Your task to perform on an android device: Open settings on Google Maps Image 0: 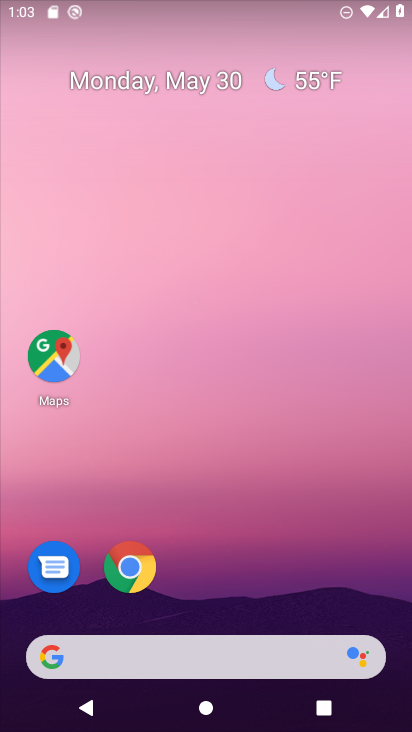
Step 0: press home button
Your task to perform on an android device: Open settings on Google Maps Image 1: 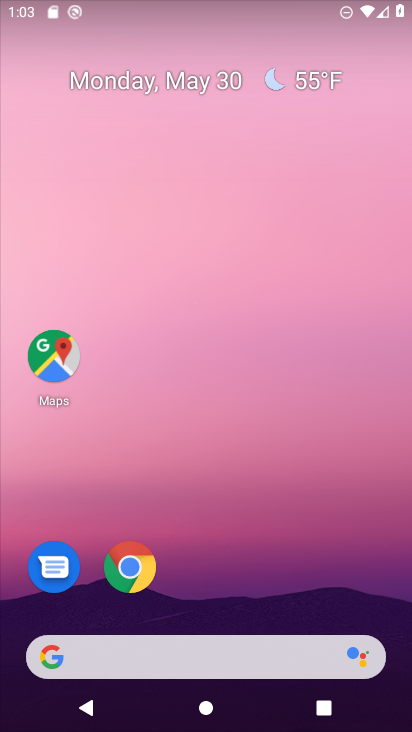
Step 1: click (53, 354)
Your task to perform on an android device: Open settings on Google Maps Image 2: 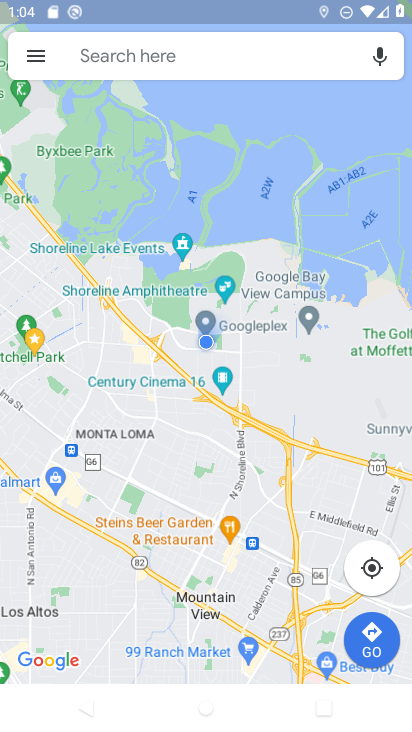
Step 2: click (28, 53)
Your task to perform on an android device: Open settings on Google Maps Image 3: 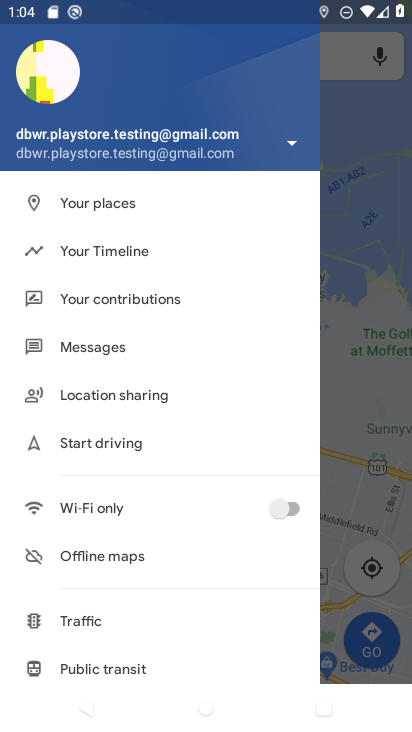
Step 3: drag from (138, 635) to (155, 237)
Your task to perform on an android device: Open settings on Google Maps Image 4: 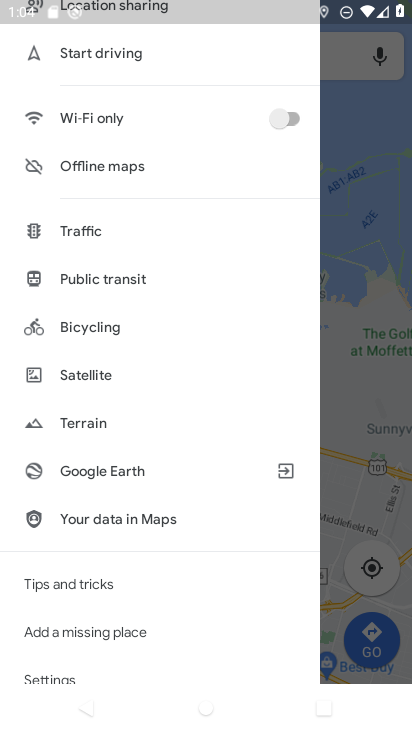
Step 4: drag from (127, 623) to (161, 234)
Your task to perform on an android device: Open settings on Google Maps Image 5: 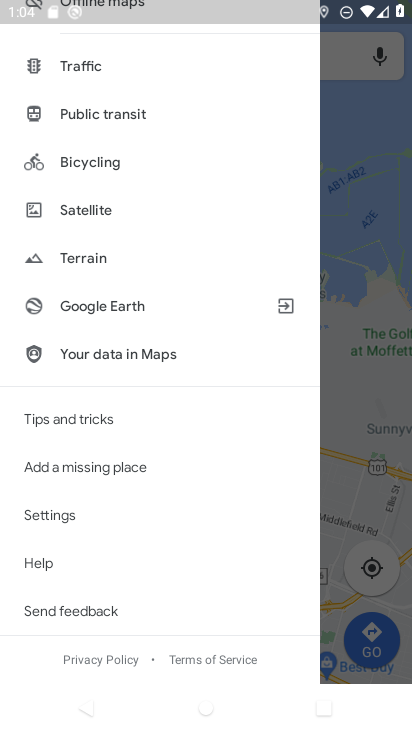
Step 5: click (87, 514)
Your task to perform on an android device: Open settings on Google Maps Image 6: 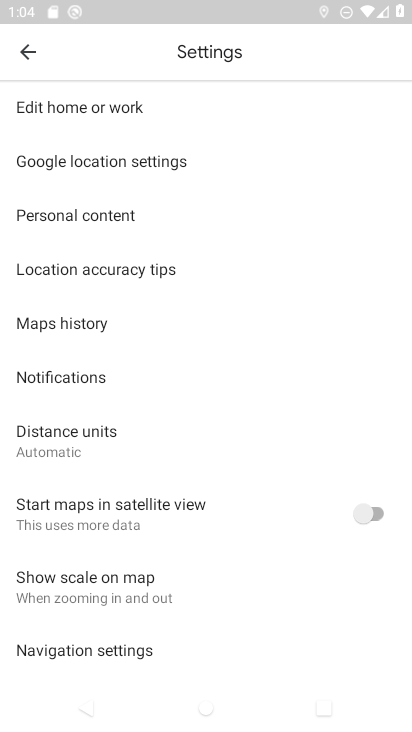
Step 6: task complete